Your task to perform on an android device: toggle pop-ups in chrome Image 0: 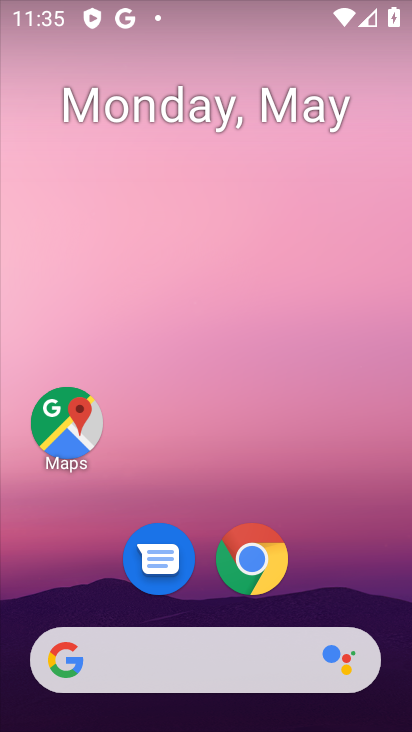
Step 0: click (256, 570)
Your task to perform on an android device: toggle pop-ups in chrome Image 1: 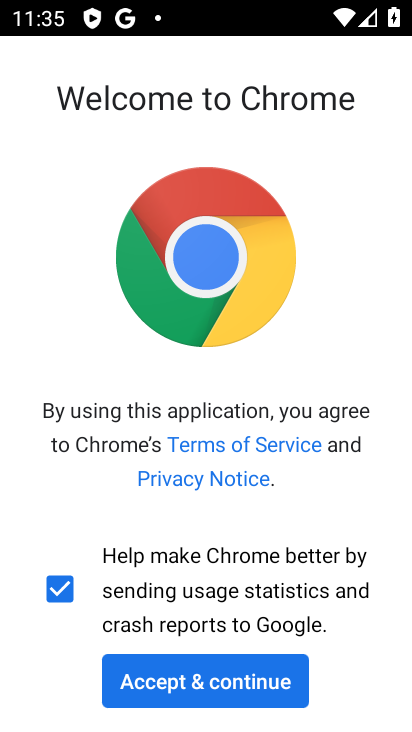
Step 1: click (219, 675)
Your task to perform on an android device: toggle pop-ups in chrome Image 2: 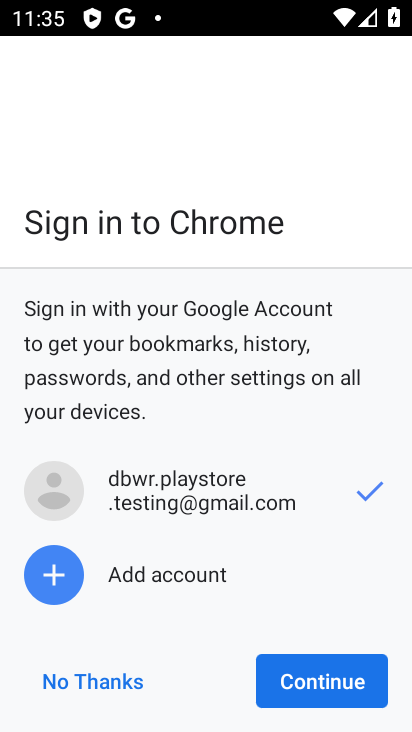
Step 2: click (340, 674)
Your task to perform on an android device: toggle pop-ups in chrome Image 3: 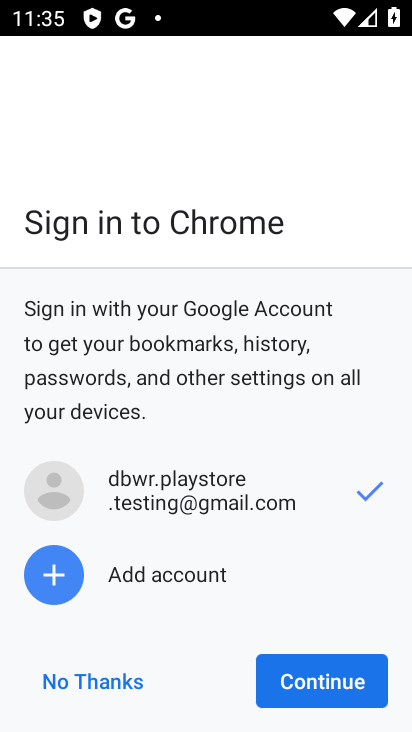
Step 3: click (340, 674)
Your task to perform on an android device: toggle pop-ups in chrome Image 4: 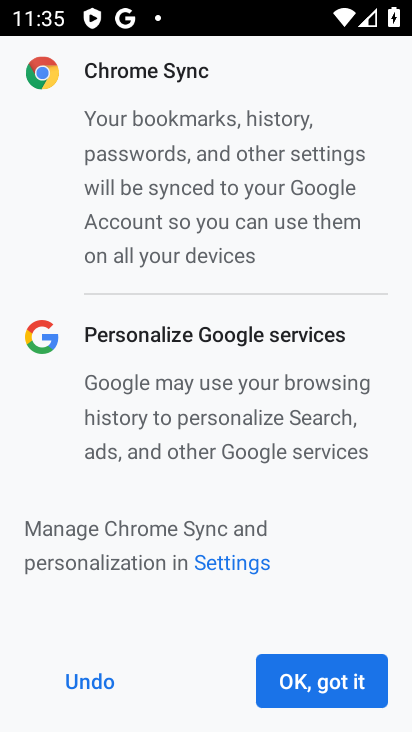
Step 4: click (340, 674)
Your task to perform on an android device: toggle pop-ups in chrome Image 5: 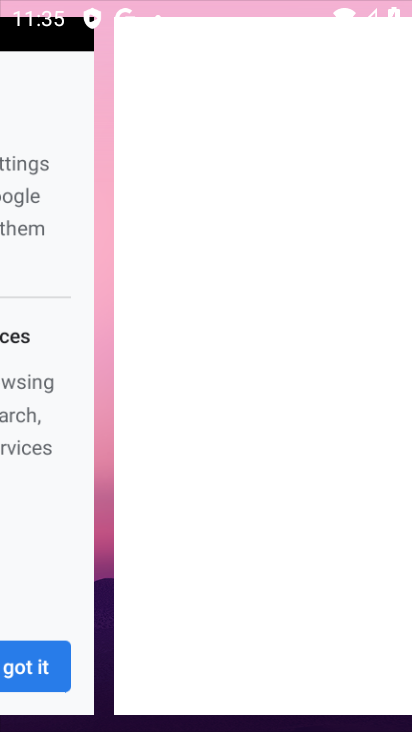
Step 5: click (340, 674)
Your task to perform on an android device: toggle pop-ups in chrome Image 6: 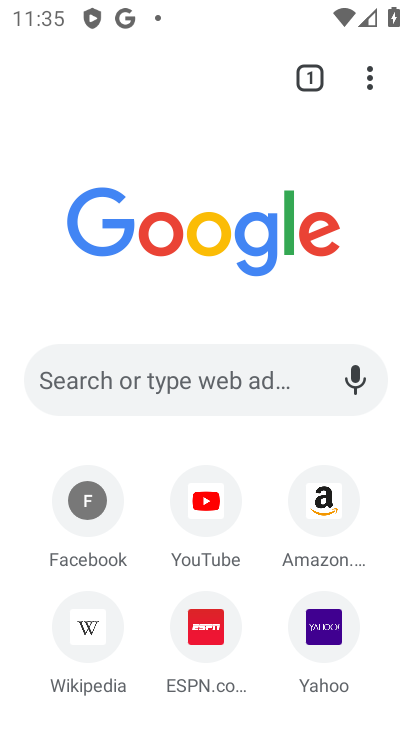
Step 6: click (371, 94)
Your task to perform on an android device: toggle pop-ups in chrome Image 7: 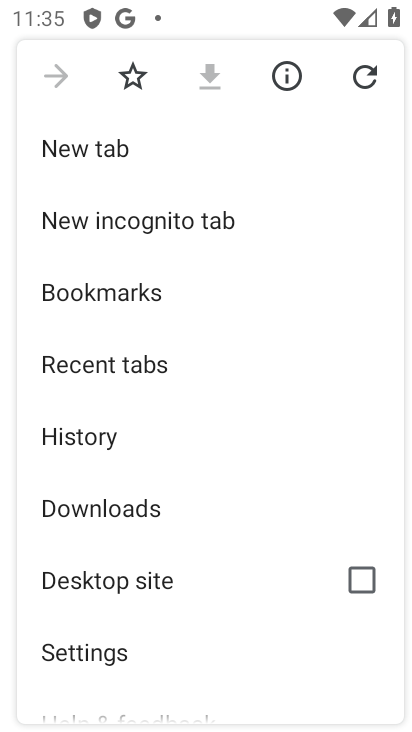
Step 7: drag from (219, 624) to (242, 416)
Your task to perform on an android device: toggle pop-ups in chrome Image 8: 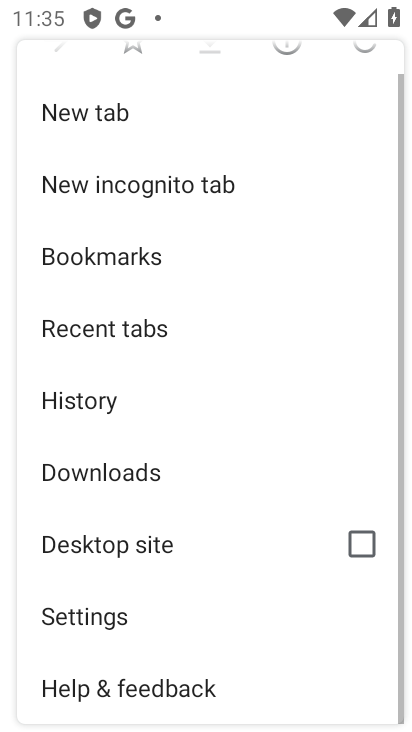
Step 8: click (136, 618)
Your task to perform on an android device: toggle pop-ups in chrome Image 9: 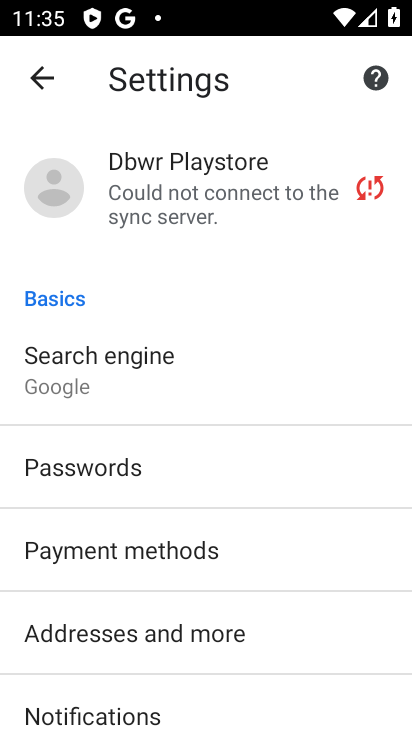
Step 9: drag from (187, 703) to (145, 200)
Your task to perform on an android device: toggle pop-ups in chrome Image 10: 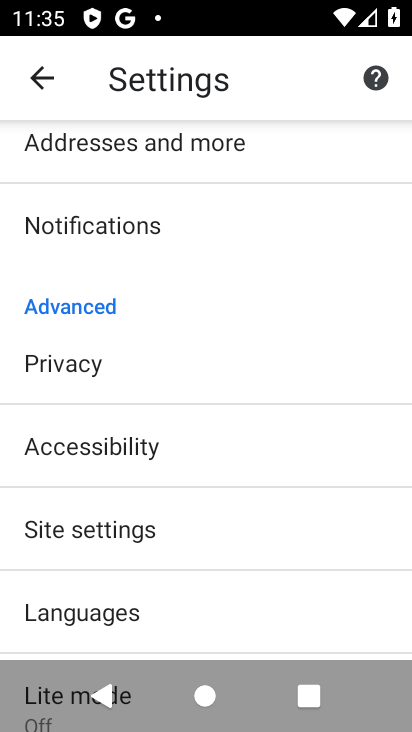
Step 10: drag from (174, 587) to (183, 346)
Your task to perform on an android device: toggle pop-ups in chrome Image 11: 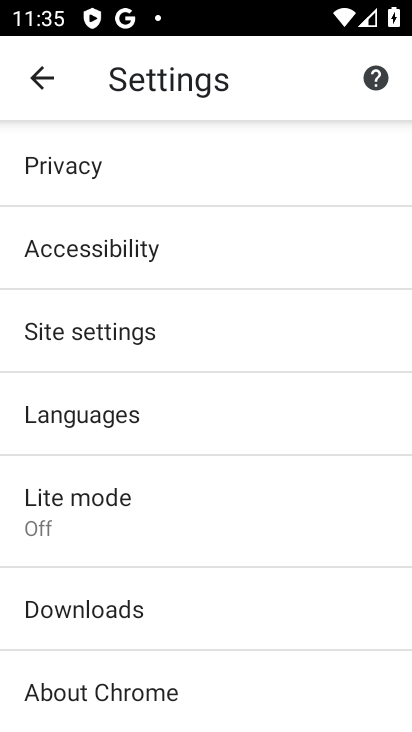
Step 11: click (229, 350)
Your task to perform on an android device: toggle pop-ups in chrome Image 12: 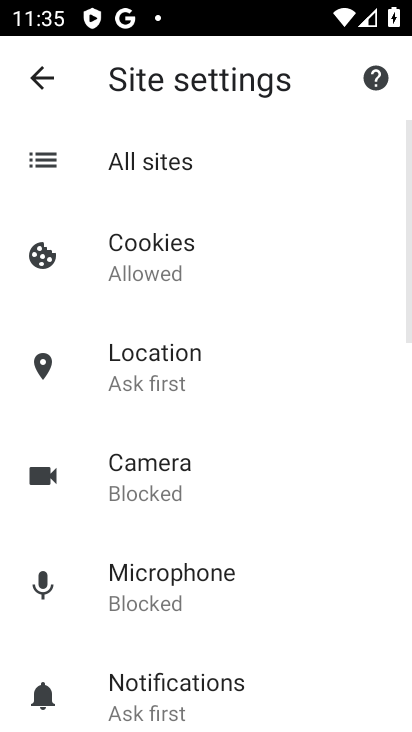
Step 12: drag from (209, 678) to (211, 288)
Your task to perform on an android device: toggle pop-ups in chrome Image 13: 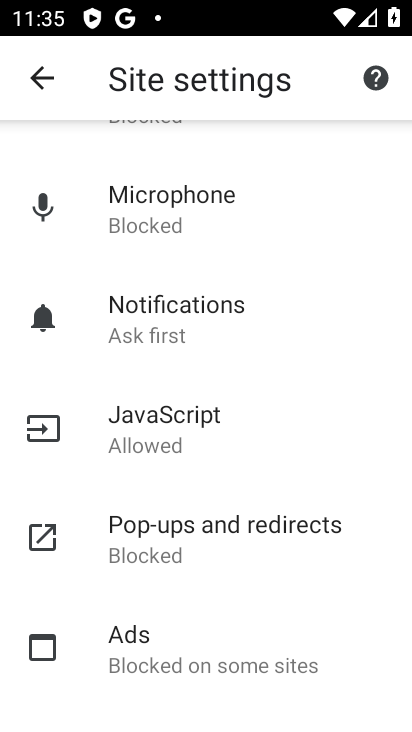
Step 13: click (236, 518)
Your task to perform on an android device: toggle pop-ups in chrome Image 14: 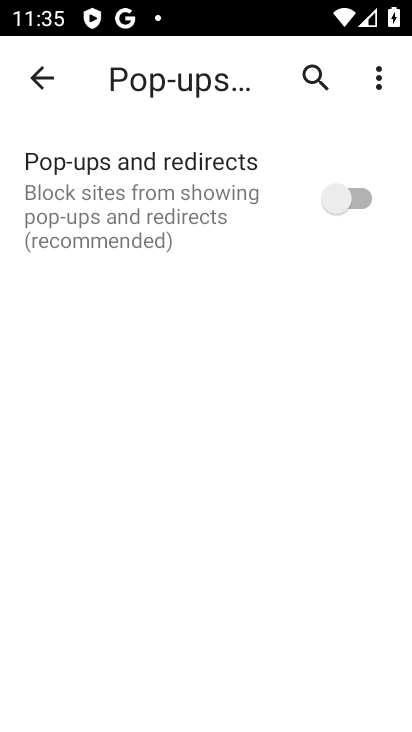
Step 14: click (357, 189)
Your task to perform on an android device: toggle pop-ups in chrome Image 15: 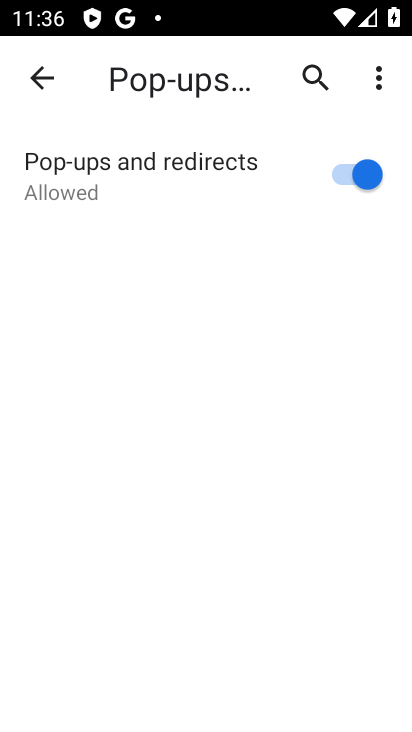
Step 15: task complete